Your task to perform on an android device: Search for sushi restaurants on Maps Image 0: 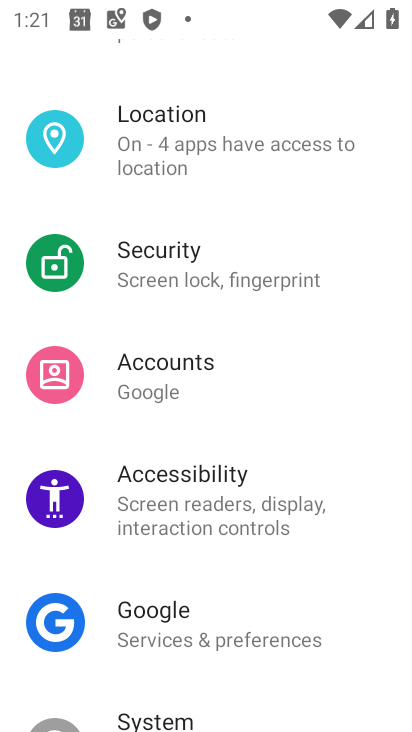
Step 0: press home button
Your task to perform on an android device: Search for sushi restaurants on Maps Image 1: 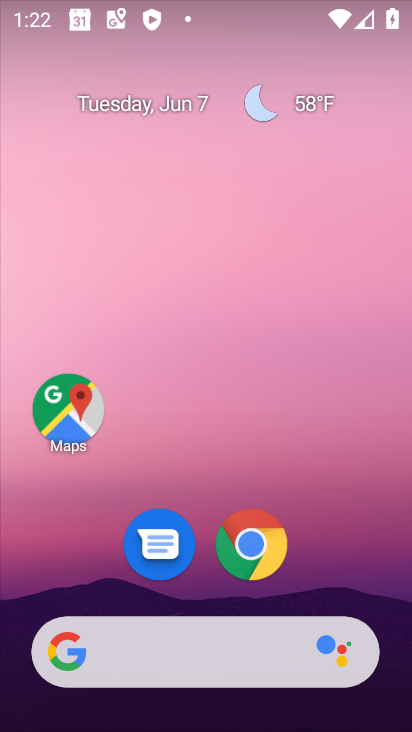
Step 1: click (22, 411)
Your task to perform on an android device: Search for sushi restaurants on Maps Image 2: 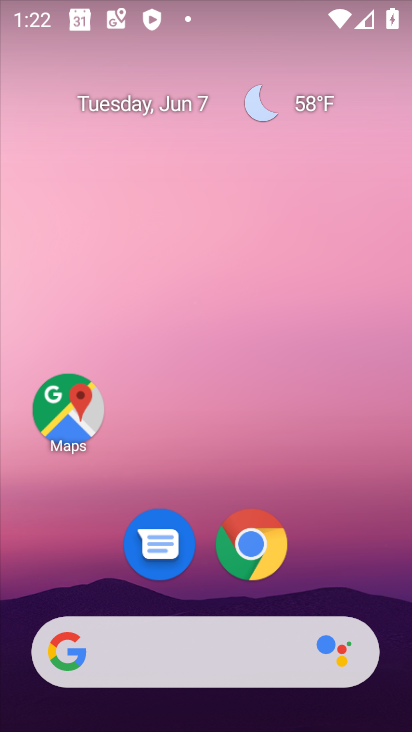
Step 2: click (66, 408)
Your task to perform on an android device: Search for sushi restaurants on Maps Image 3: 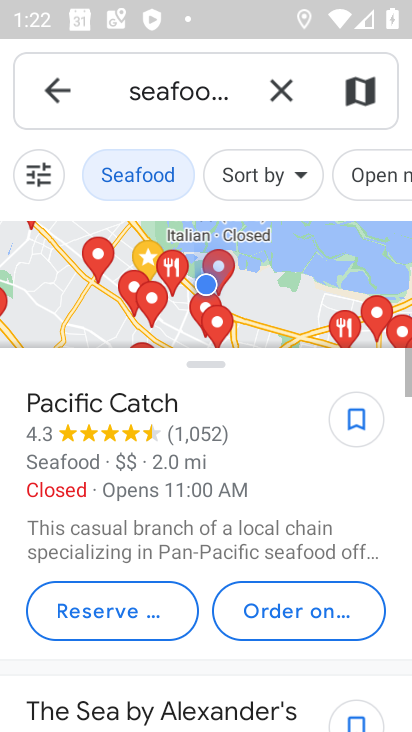
Step 3: click (283, 89)
Your task to perform on an android device: Search for sushi restaurants on Maps Image 4: 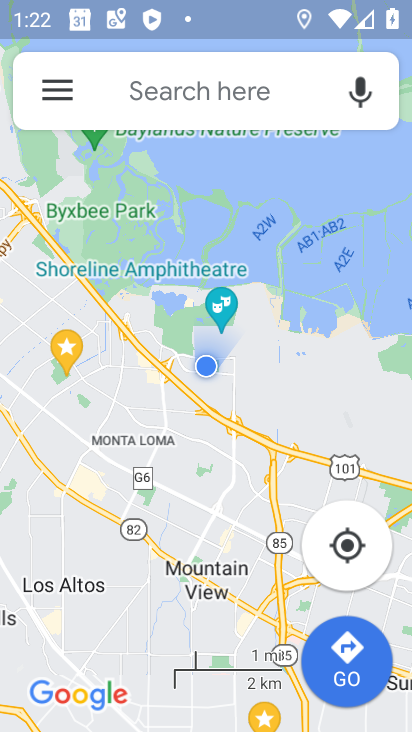
Step 4: click (174, 94)
Your task to perform on an android device: Search for sushi restaurants on Maps Image 5: 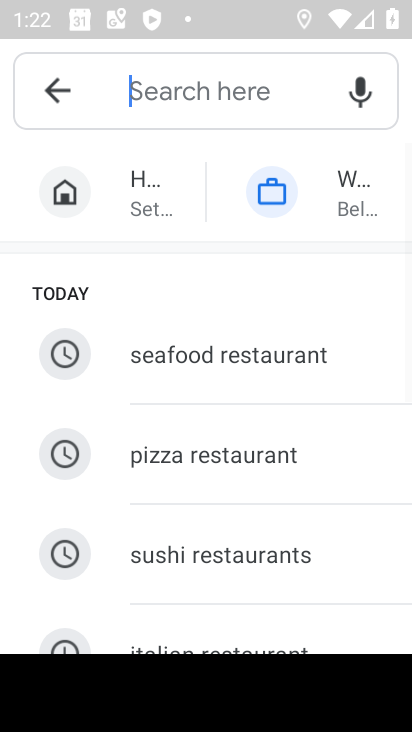
Step 5: click (241, 542)
Your task to perform on an android device: Search for sushi restaurants on Maps Image 6: 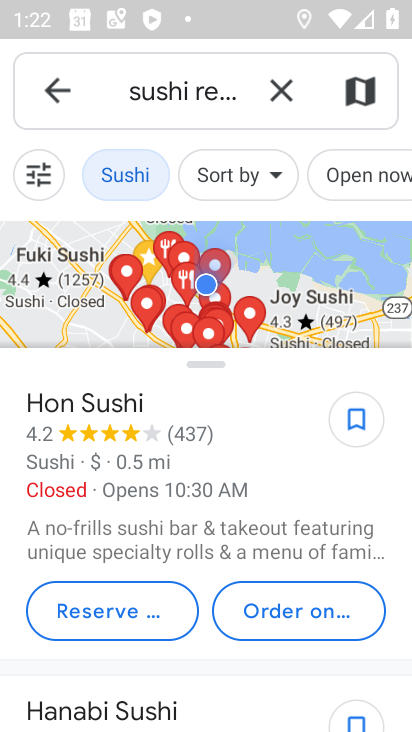
Step 6: task complete